Your task to perform on an android device: check the backup settings in the google photos Image 0: 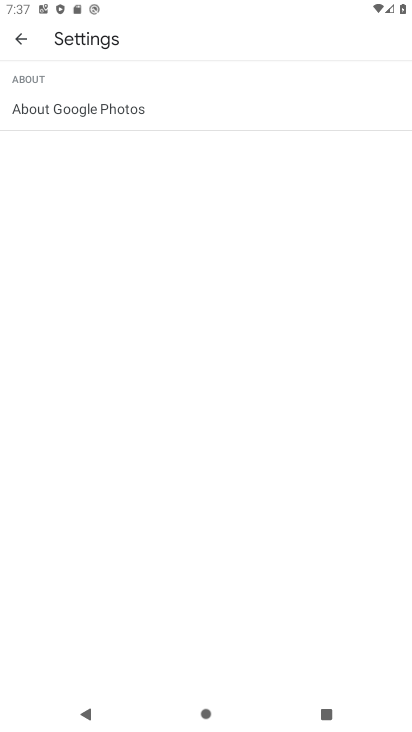
Step 0: press home button
Your task to perform on an android device: check the backup settings in the google photos Image 1: 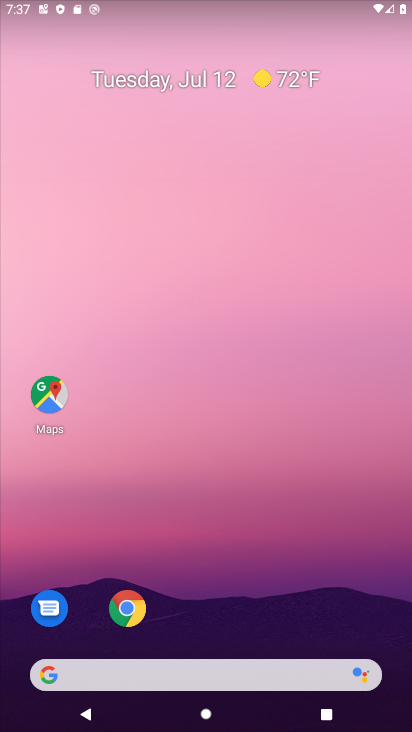
Step 1: drag from (373, 618) to (371, 45)
Your task to perform on an android device: check the backup settings in the google photos Image 2: 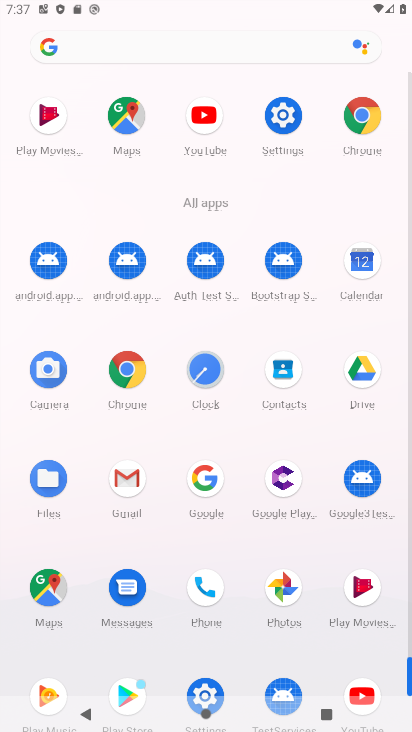
Step 2: click (284, 583)
Your task to perform on an android device: check the backup settings in the google photos Image 3: 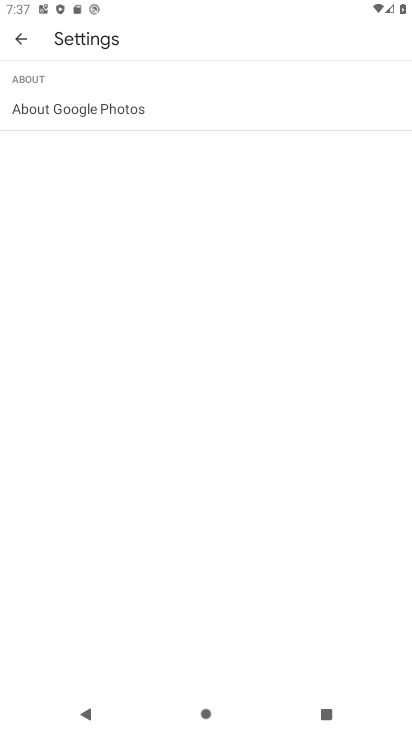
Step 3: press back button
Your task to perform on an android device: check the backup settings in the google photos Image 4: 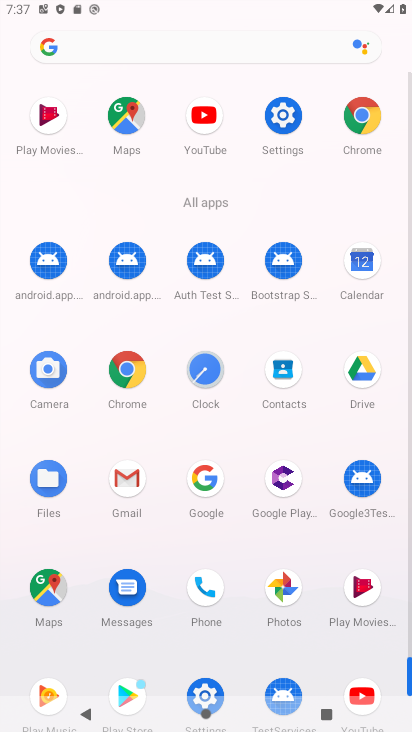
Step 4: click (280, 586)
Your task to perform on an android device: check the backup settings in the google photos Image 5: 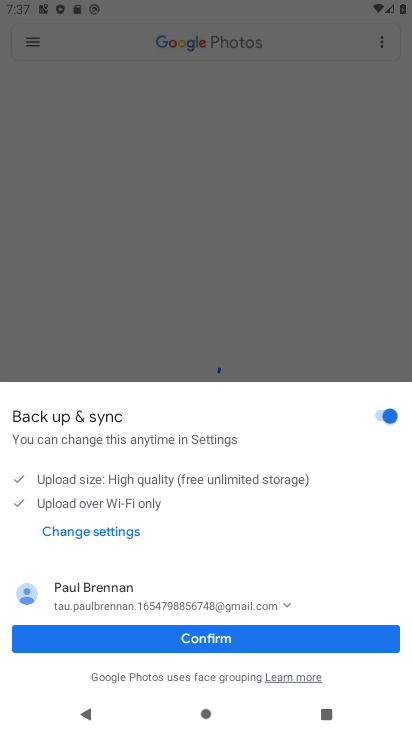
Step 5: click (377, 638)
Your task to perform on an android device: check the backup settings in the google photos Image 6: 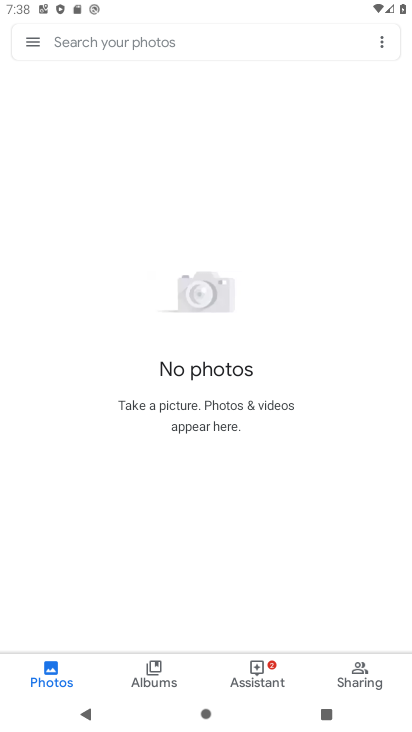
Step 6: click (30, 41)
Your task to perform on an android device: check the backup settings in the google photos Image 7: 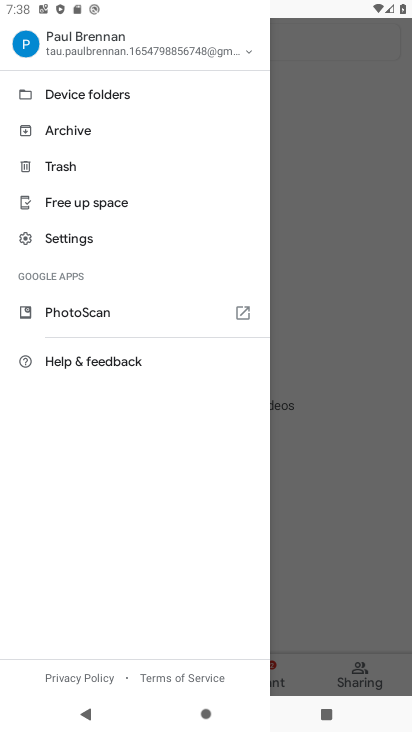
Step 7: click (74, 237)
Your task to perform on an android device: check the backup settings in the google photos Image 8: 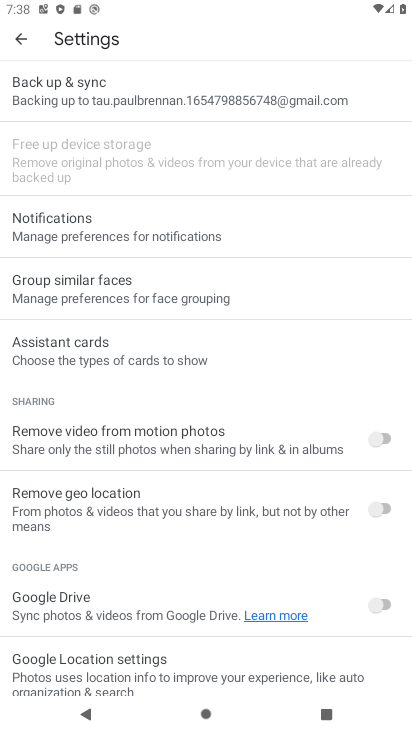
Step 8: click (178, 100)
Your task to perform on an android device: check the backup settings in the google photos Image 9: 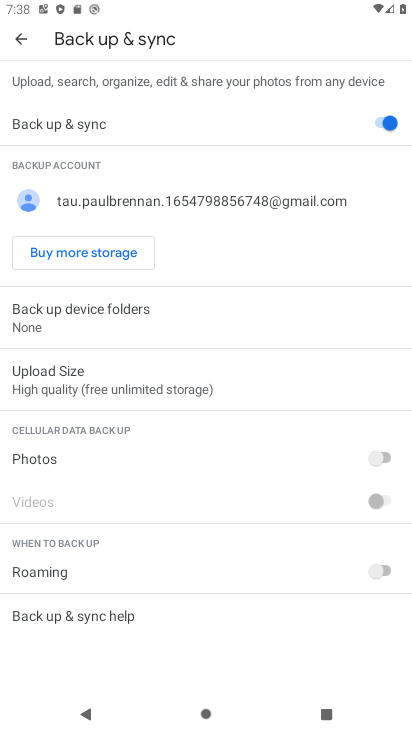
Step 9: task complete